Your task to perform on an android device: Open notification settings Image 0: 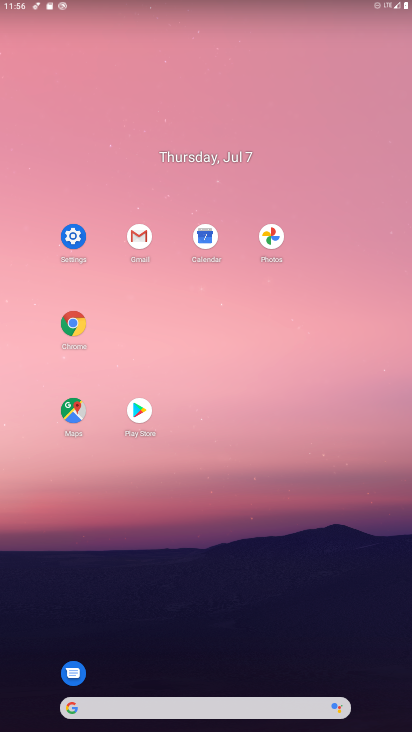
Step 0: click (67, 237)
Your task to perform on an android device: Open notification settings Image 1: 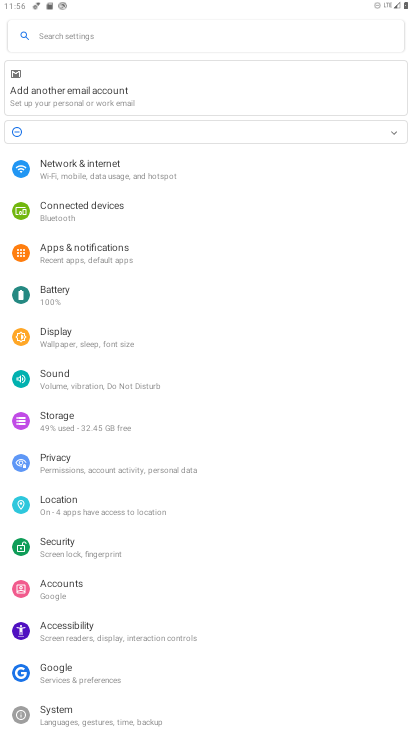
Step 1: click (79, 252)
Your task to perform on an android device: Open notification settings Image 2: 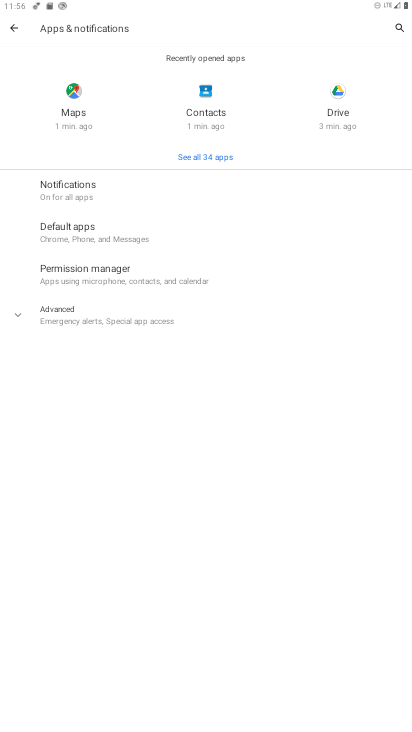
Step 2: task complete